Your task to perform on an android device: open a bookmark in the chrome app Image 0: 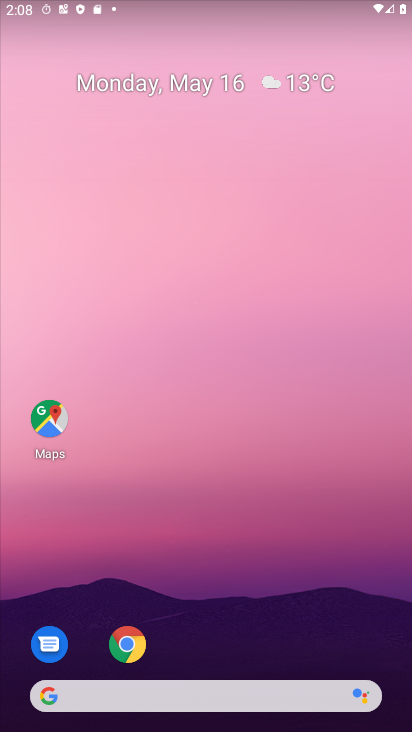
Step 0: drag from (202, 638) to (216, 166)
Your task to perform on an android device: open a bookmark in the chrome app Image 1: 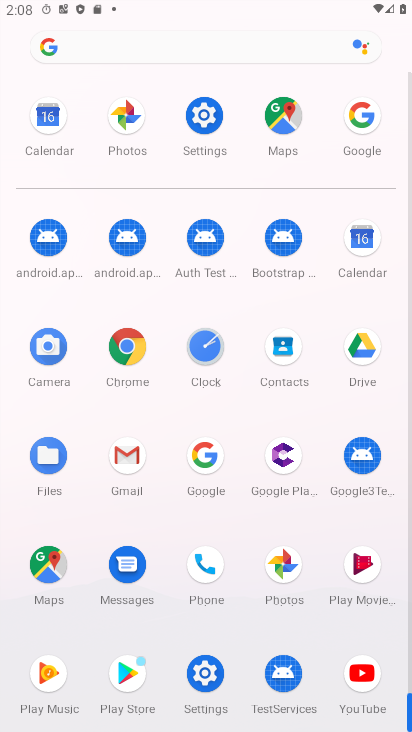
Step 1: click (129, 374)
Your task to perform on an android device: open a bookmark in the chrome app Image 2: 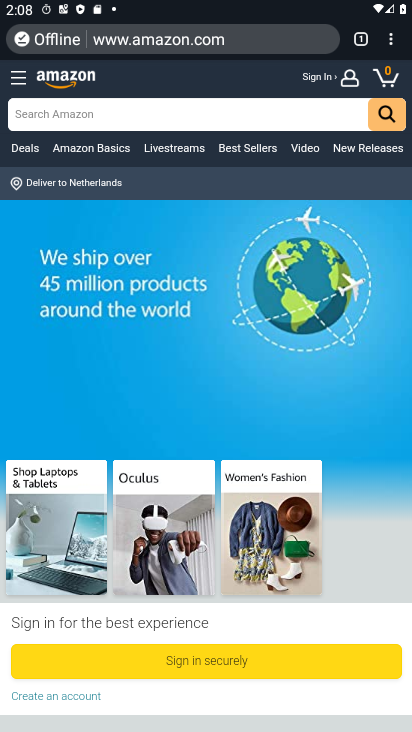
Step 2: click (392, 44)
Your task to perform on an android device: open a bookmark in the chrome app Image 3: 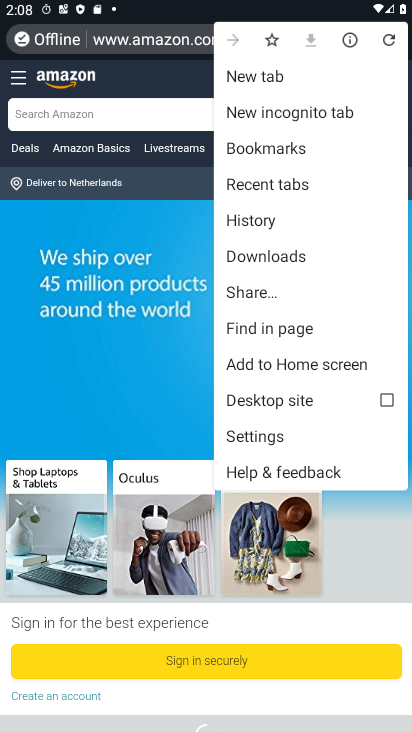
Step 3: click (256, 151)
Your task to perform on an android device: open a bookmark in the chrome app Image 4: 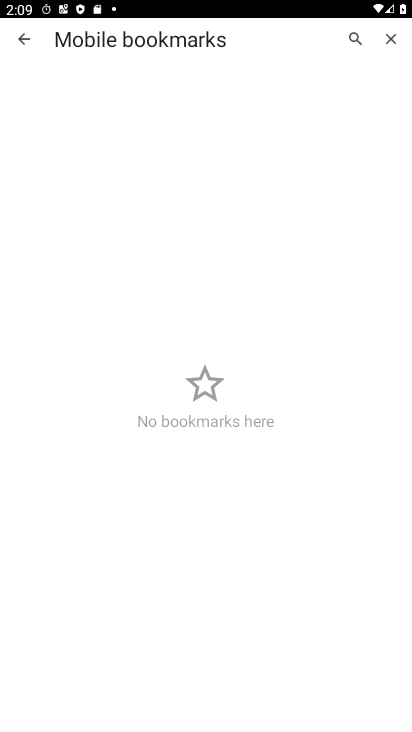
Step 4: task complete